Your task to perform on an android device: What is the recent news? Image 0: 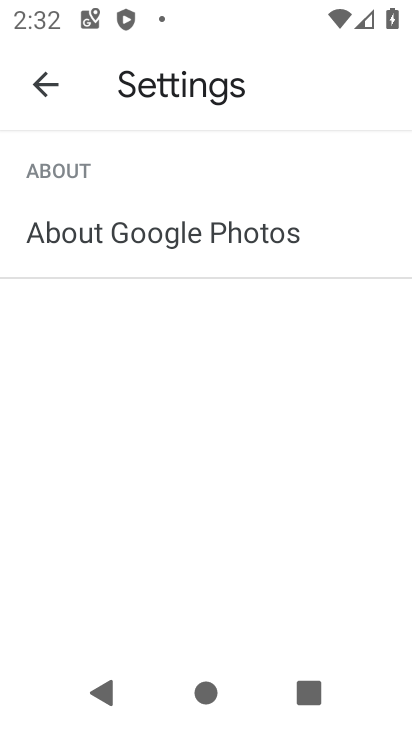
Step 0: press home button
Your task to perform on an android device: What is the recent news? Image 1: 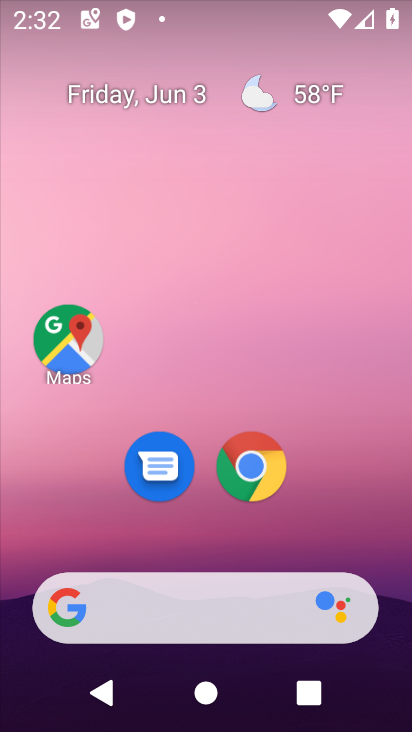
Step 1: click (148, 580)
Your task to perform on an android device: What is the recent news? Image 2: 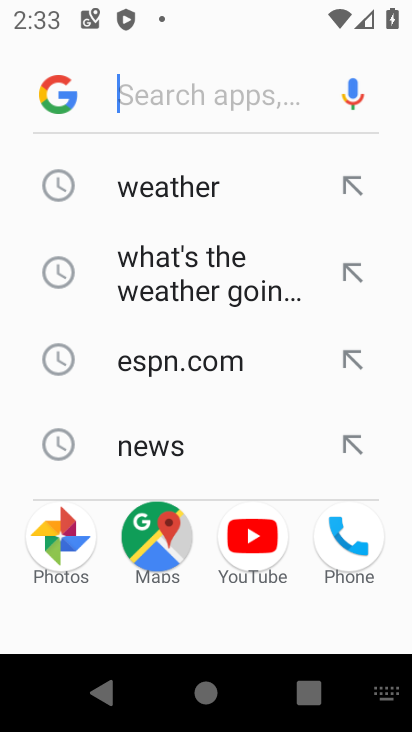
Step 2: type "recent news"
Your task to perform on an android device: What is the recent news? Image 3: 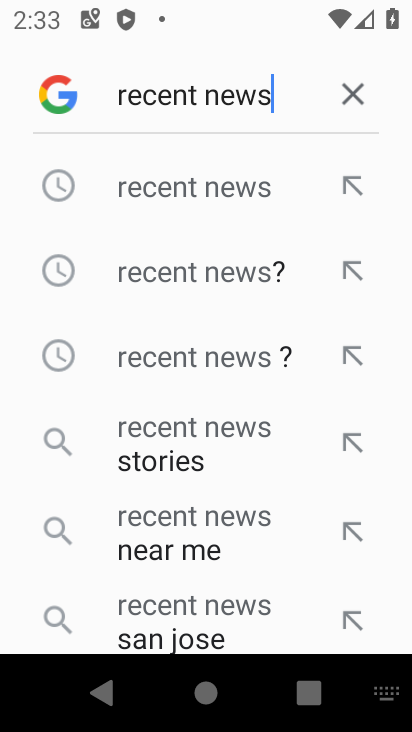
Step 3: click (197, 181)
Your task to perform on an android device: What is the recent news? Image 4: 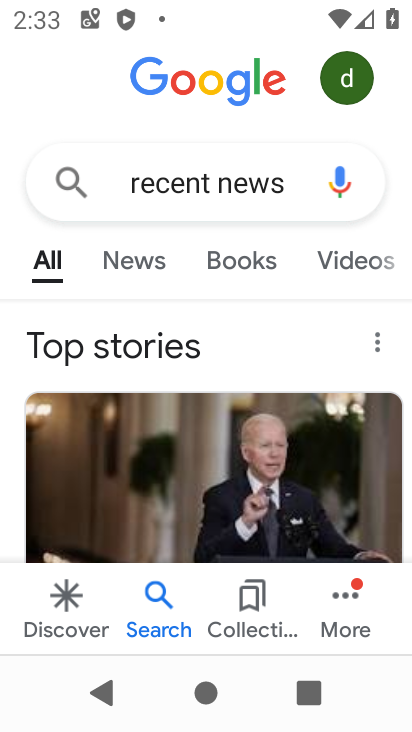
Step 4: task complete